Your task to perform on an android device: Open Google Maps and go to "Timeline" Image 0: 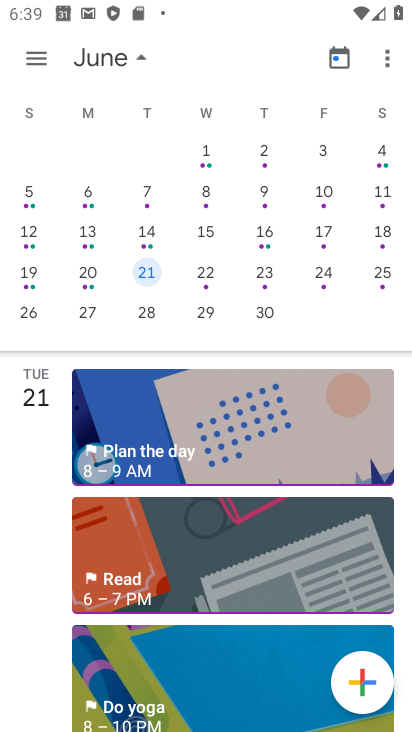
Step 0: press home button
Your task to perform on an android device: Open Google Maps and go to "Timeline" Image 1: 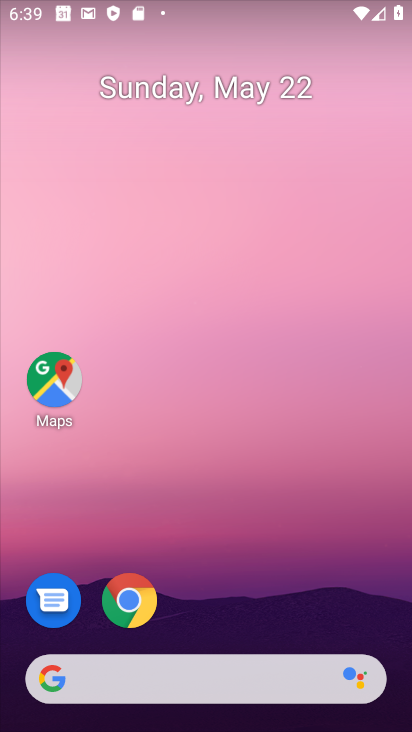
Step 1: drag from (362, 596) to (214, 47)
Your task to perform on an android device: Open Google Maps and go to "Timeline" Image 2: 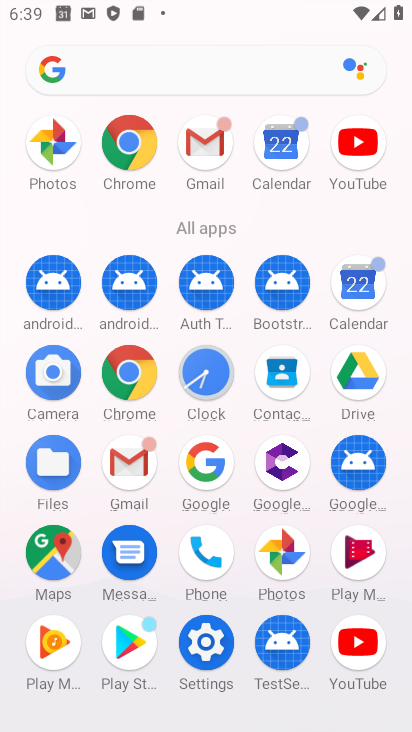
Step 2: click (57, 535)
Your task to perform on an android device: Open Google Maps and go to "Timeline" Image 3: 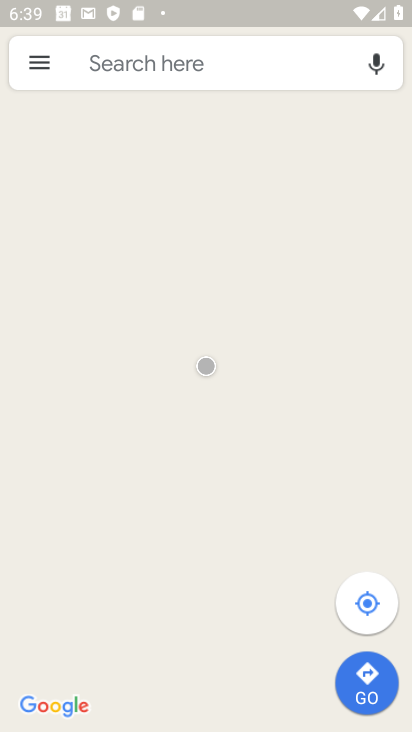
Step 3: click (35, 63)
Your task to perform on an android device: Open Google Maps and go to "Timeline" Image 4: 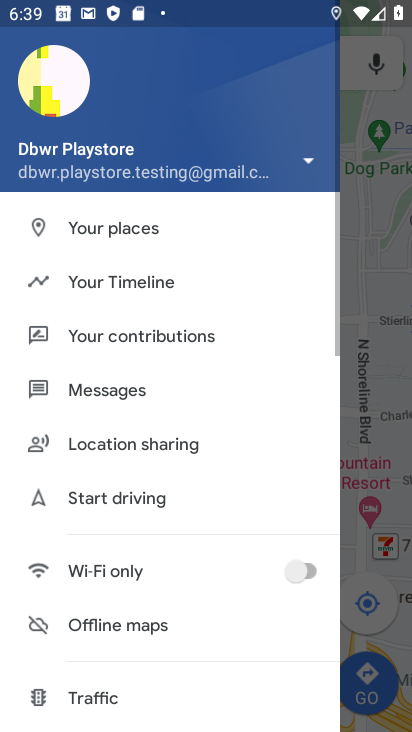
Step 4: click (147, 281)
Your task to perform on an android device: Open Google Maps and go to "Timeline" Image 5: 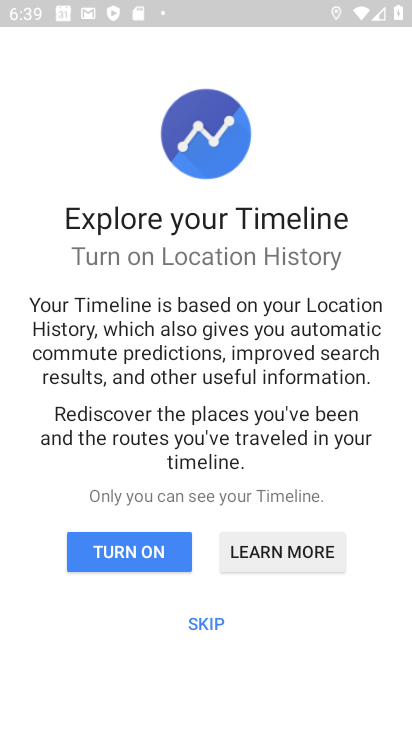
Step 5: task complete